Your task to perform on an android device: turn on notifications settings in the gmail app Image 0: 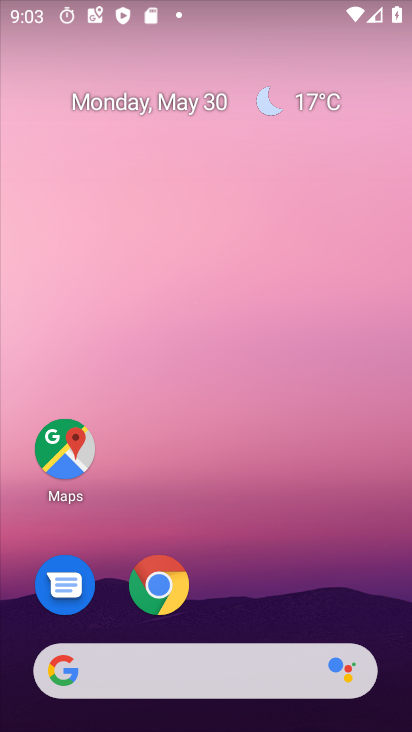
Step 0: drag from (228, 521) to (285, 259)
Your task to perform on an android device: turn on notifications settings in the gmail app Image 1: 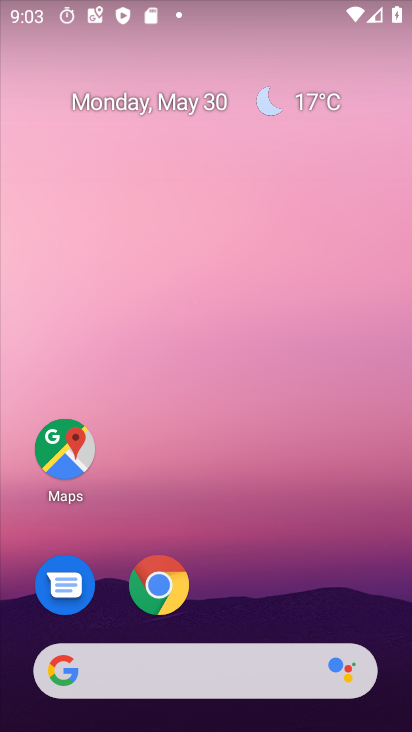
Step 1: drag from (205, 431) to (255, 115)
Your task to perform on an android device: turn on notifications settings in the gmail app Image 2: 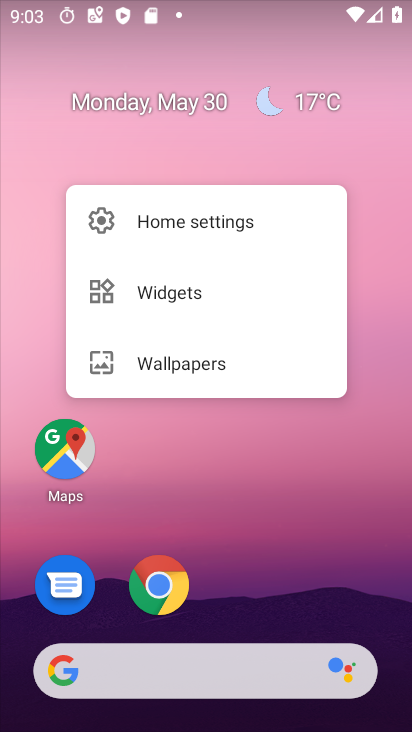
Step 2: drag from (214, 237) to (225, 123)
Your task to perform on an android device: turn on notifications settings in the gmail app Image 3: 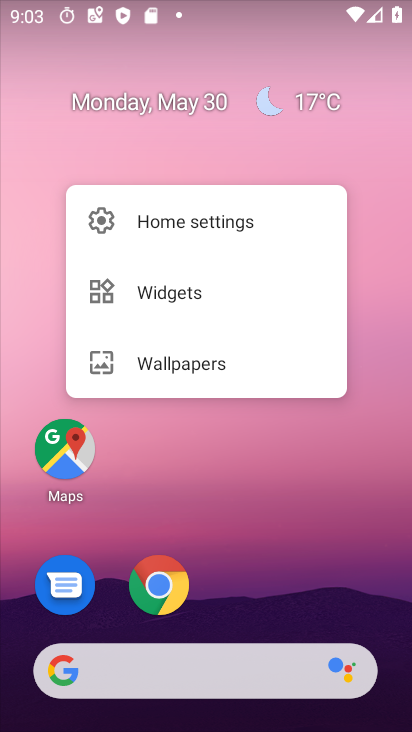
Step 3: click (231, 406)
Your task to perform on an android device: turn on notifications settings in the gmail app Image 4: 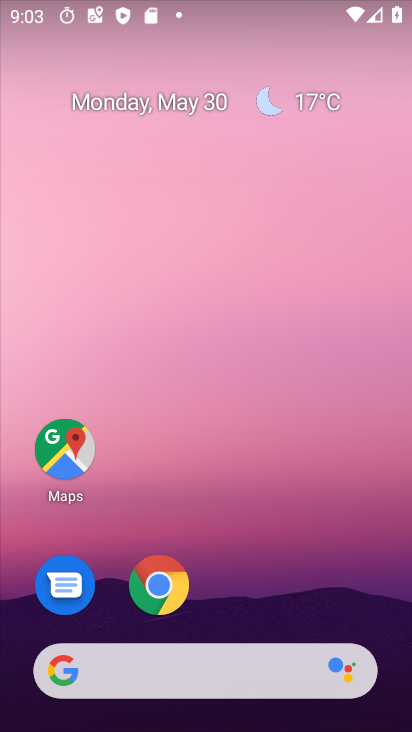
Step 4: drag from (254, 607) to (272, 236)
Your task to perform on an android device: turn on notifications settings in the gmail app Image 5: 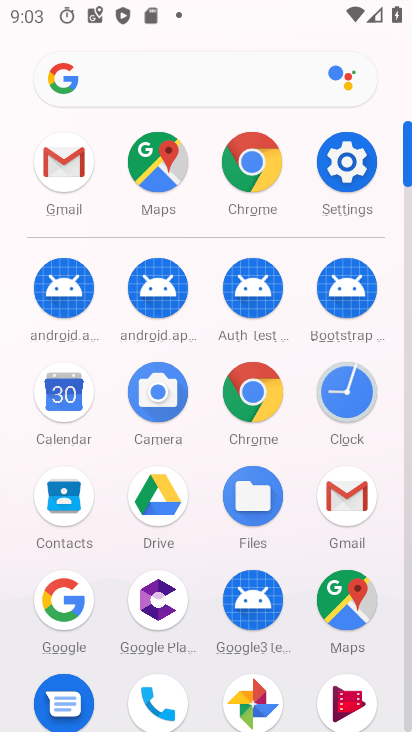
Step 5: click (344, 494)
Your task to perform on an android device: turn on notifications settings in the gmail app Image 6: 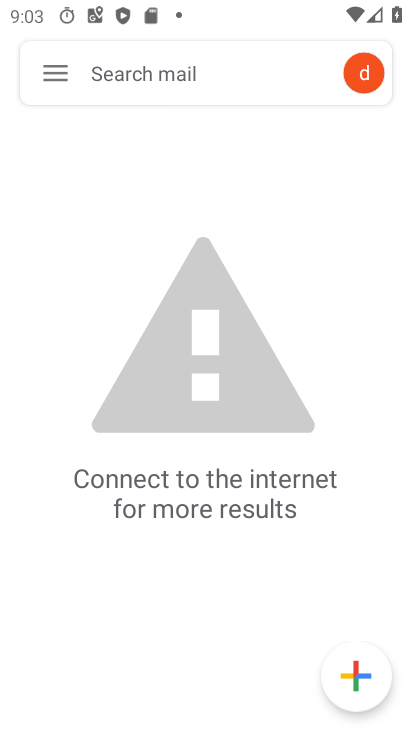
Step 6: click (44, 75)
Your task to perform on an android device: turn on notifications settings in the gmail app Image 7: 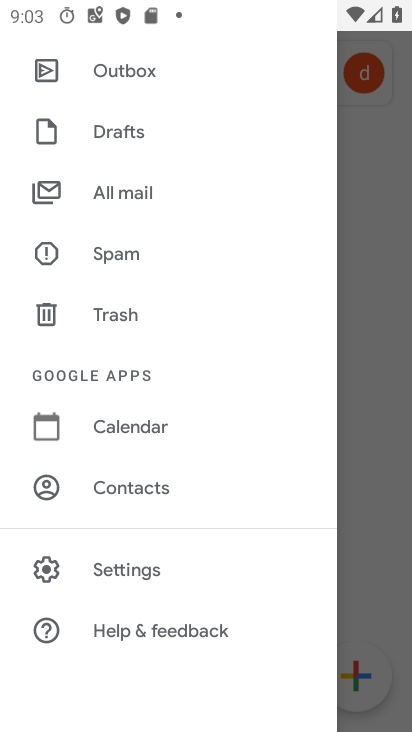
Step 7: click (196, 560)
Your task to perform on an android device: turn on notifications settings in the gmail app Image 8: 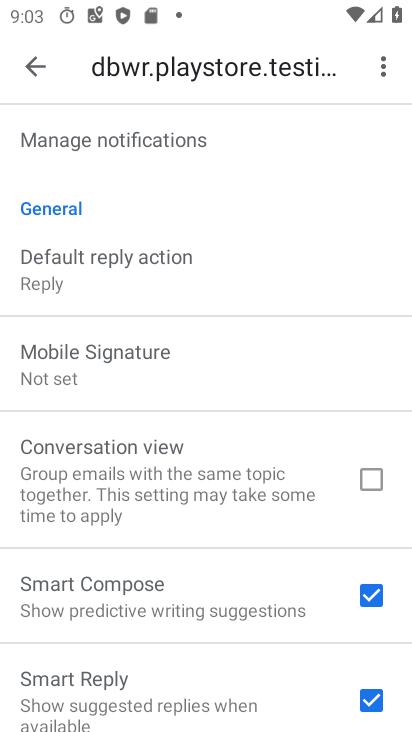
Step 8: drag from (195, 371) to (159, 514)
Your task to perform on an android device: turn on notifications settings in the gmail app Image 9: 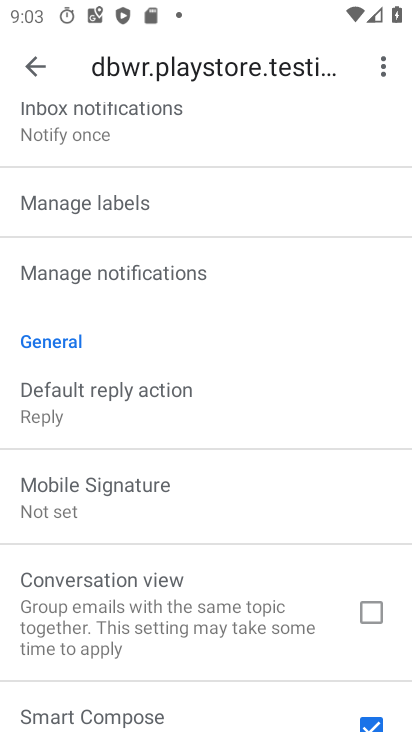
Step 9: click (237, 270)
Your task to perform on an android device: turn on notifications settings in the gmail app Image 10: 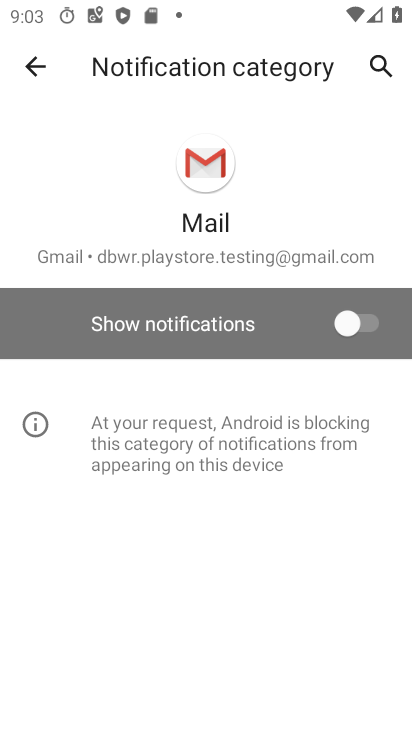
Step 10: click (286, 311)
Your task to perform on an android device: turn on notifications settings in the gmail app Image 11: 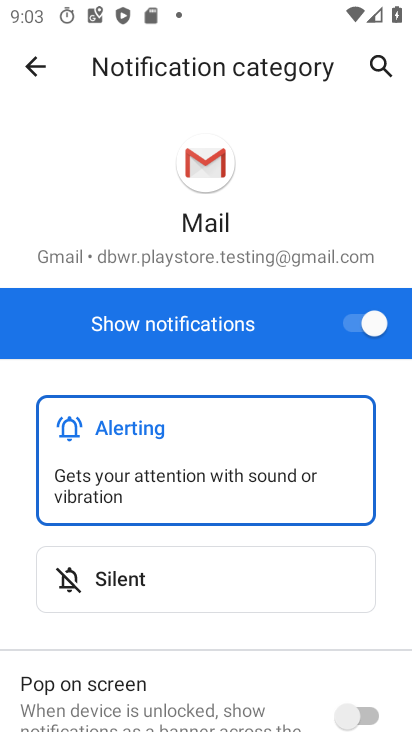
Step 11: task complete